Your task to perform on an android device: toggle translation in the chrome app Image 0: 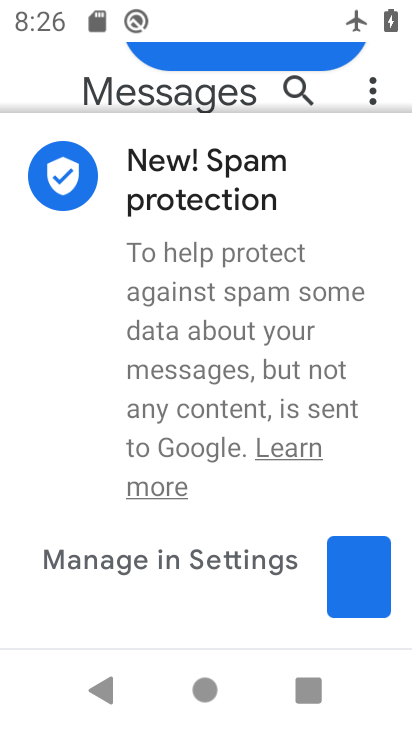
Step 0: press home button
Your task to perform on an android device: toggle translation in the chrome app Image 1: 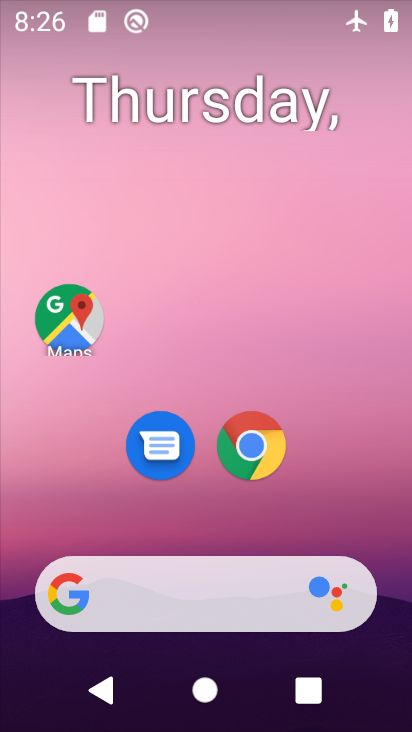
Step 1: click (265, 443)
Your task to perform on an android device: toggle translation in the chrome app Image 2: 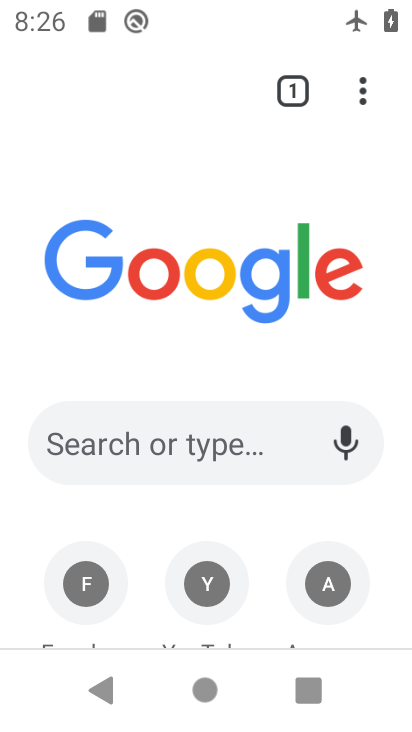
Step 2: click (367, 87)
Your task to perform on an android device: toggle translation in the chrome app Image 3: 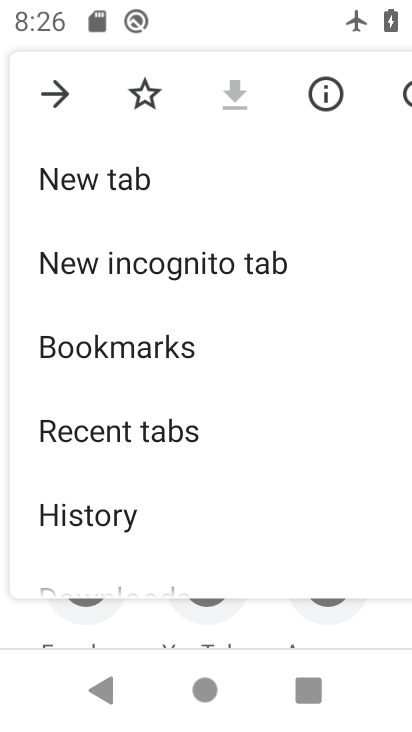
Step 3: drag from (142, 539) to (162, 171)
Your task to perform on an android device: toggle translation in the chrome app Image 4: 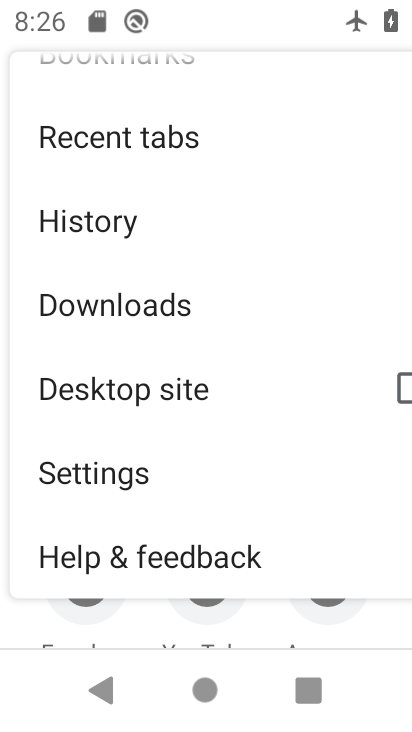
Step 4: click (110, 475)
Your task to perform on an android device: toggle translation in the chrome app Image 5: 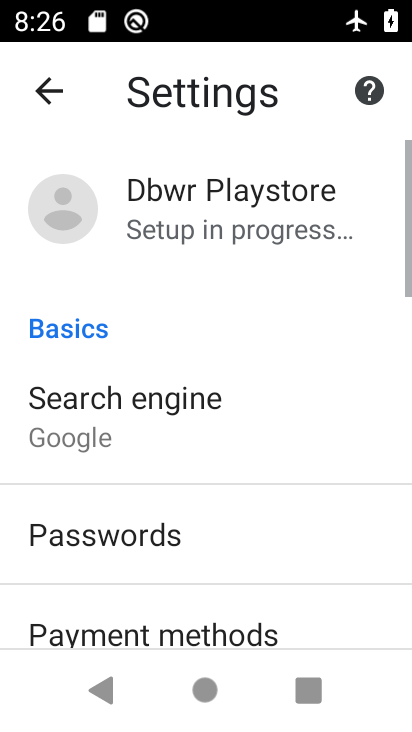
Step 5: drag from (184, 609) to (176, 183)
Your task to perform on an android device: toggle translation in the chrome app Image 6: 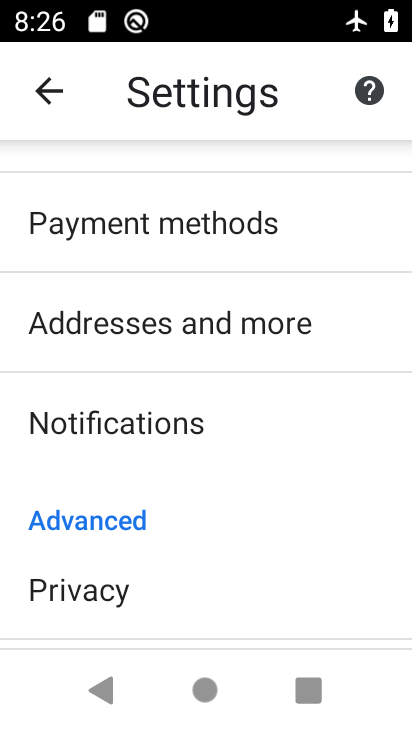
Step 6: drag from (152, 591) to (209, 179)
Your task to perform on an android device: toggle translation in the chrome app Image 7: 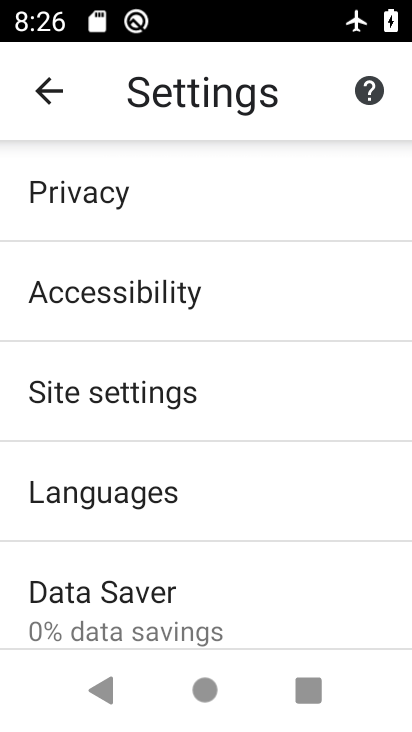
Step 7: click (131, 488)
Your task to perform on an android device: toggle translation in the chrome app Image 8: 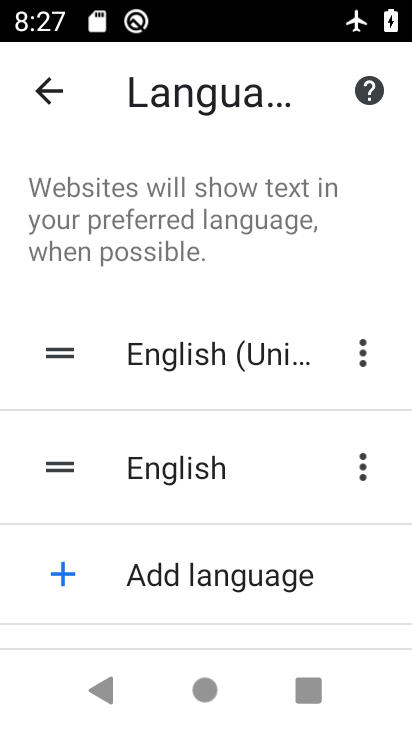
Step 8: drag from (180, 584) to (190, 248)
Your task to perform on an android device: toggle translation in the chrome app Image 9: 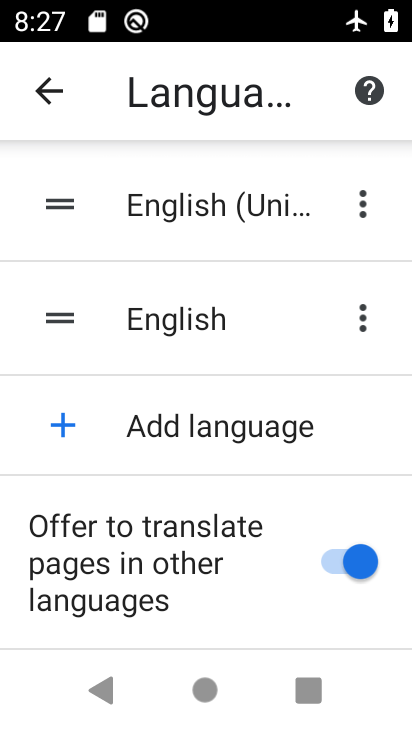
Step 9: click (350, 548)
Your task to perform on an android device: toggle translation in the chrome app Image 10: 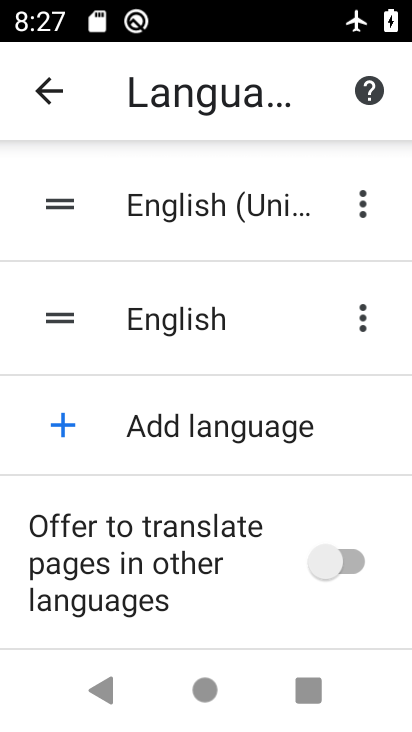
Step 10: task complete